Your task to perform on an android device: turn pop-ups off in chrome Image 0: 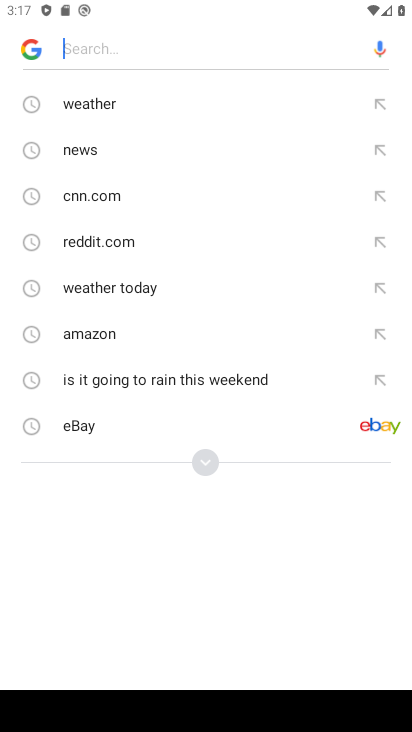
Step 0: press home button
Your task to perform on an android device: turn pop-ups off in chrome Image 1: 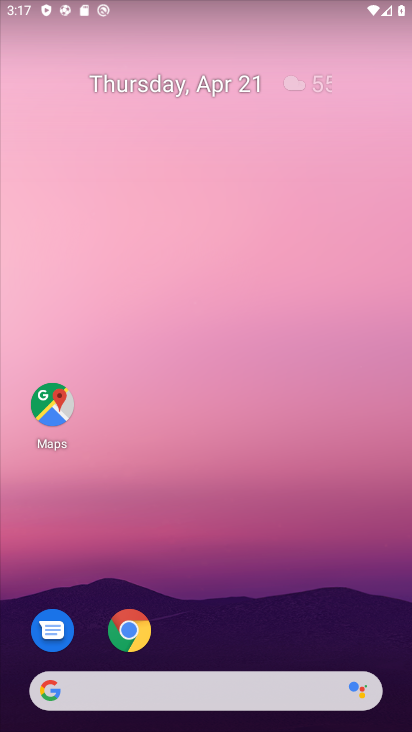
Step 1: click (124, 631)
Your task to perform on an android device: turn pop-ups off in chrome Image 2: 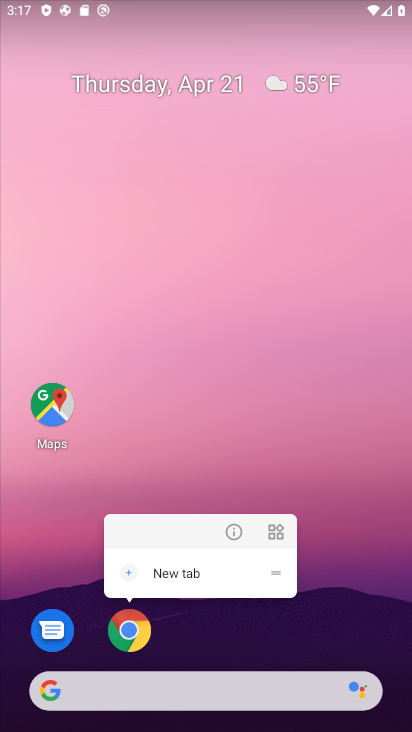
Step 2: click (131, 624)
Your task to perform on an android device: turn pop-ups off in chrome Image 3: 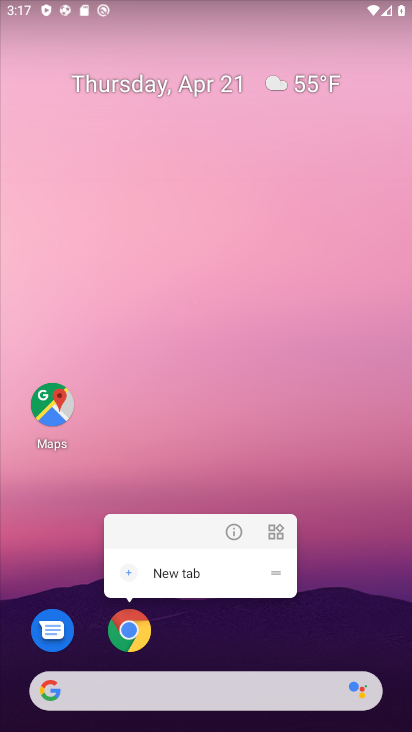
Step 3: click (144, 631)
Your task to perform on an android device: turn pop-ups off in chrome Image 4: 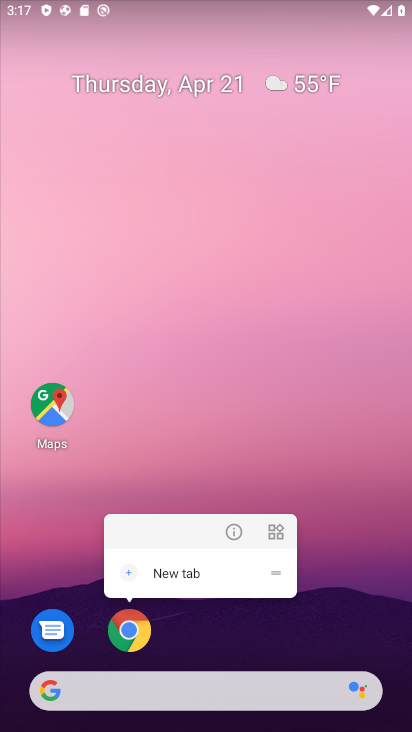
Step 4: click (110, 633)
Your task to perform on an android device: turn pop-ups off in chrome Image 5: 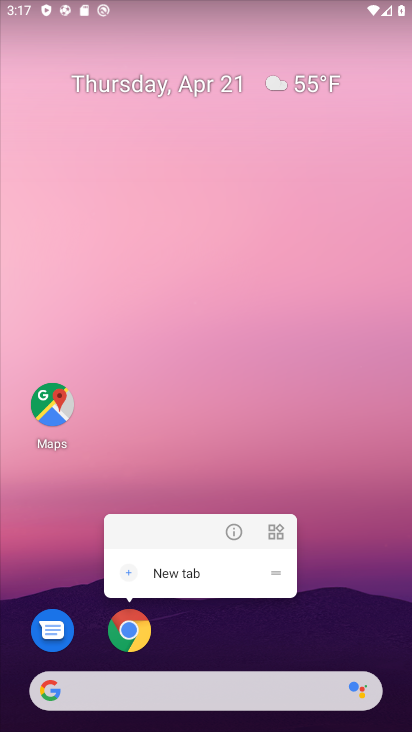
Step 5: click (118, 634)
Your task to perform on an android device: turn pop-ups off in chrome Image 6: 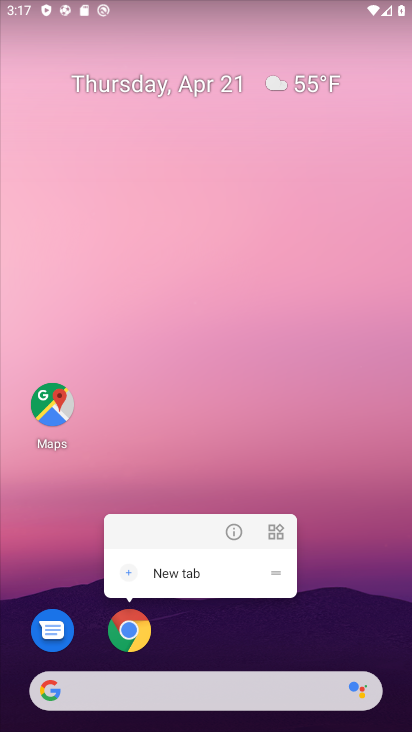
Step 6: click (120, 633)
Your task to perform on an android device: turn pop-ups off in chrome Image 7: 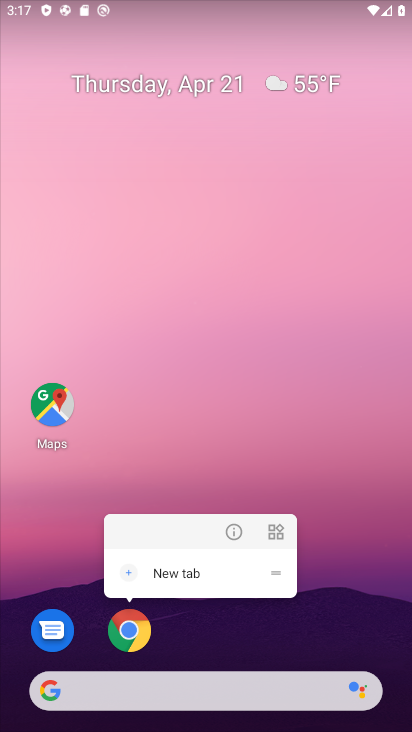
Step 7: click (203, 649)
Your task to perform on an android device: turn pop-ups off in chrome Image 8: 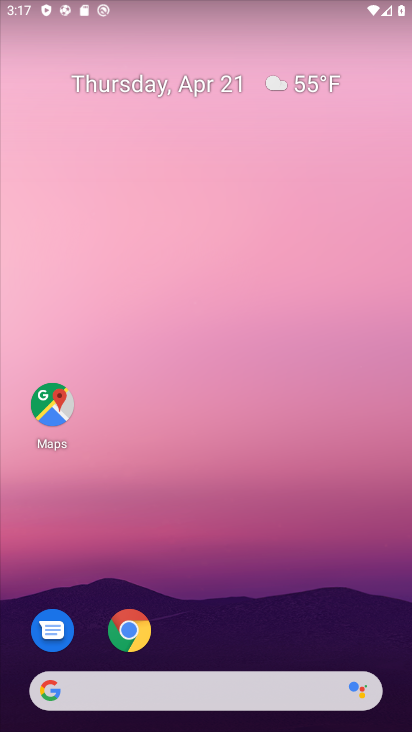
Step 8: drag from (199, 647) to (333, 19)
Your task to perform on an android device: turn pop-ups off in chrome Image 9: 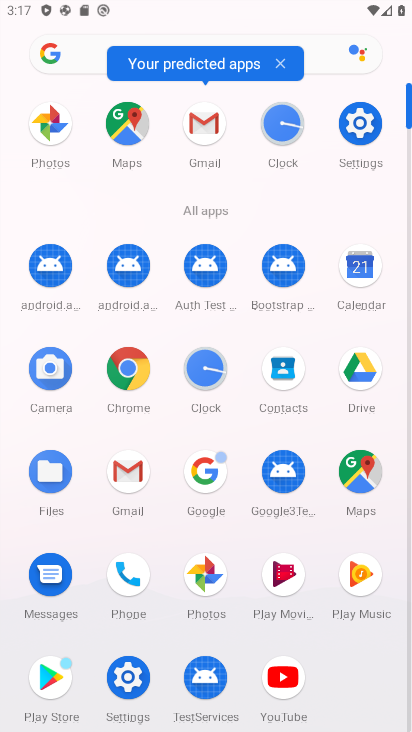
Step 9: click (138, 372)
Your task to perform on an android device: turn pop-ups off in chrome Image 10: 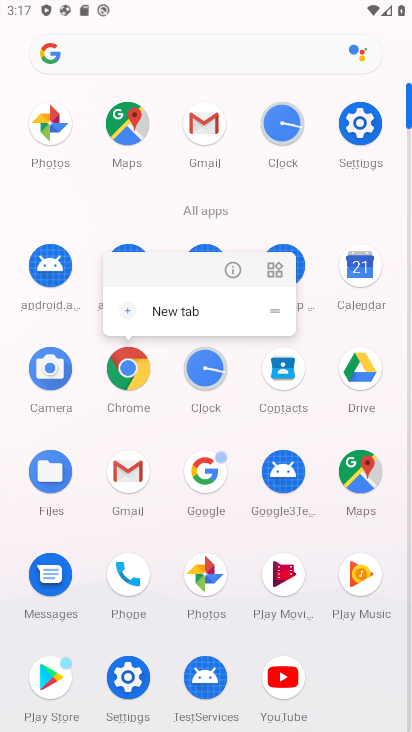
Step 10: click (132, 365)
Your task to perform on an android device: turn pop-ups off in chrome Image 11: 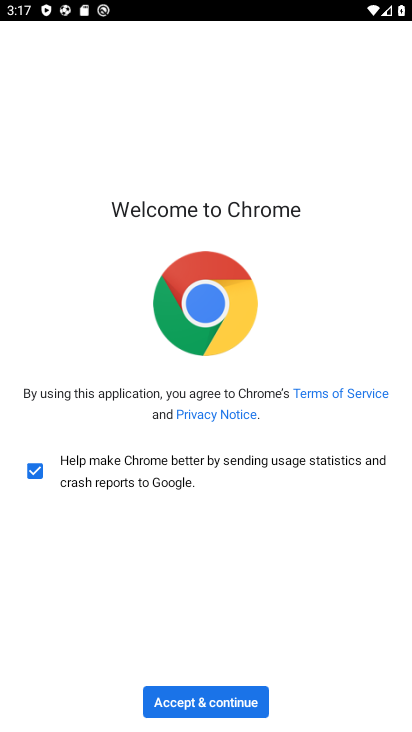
Step 11: click (214, 702)
Your task to perform on an android device: turn pop-ups off in chrome Image 12: 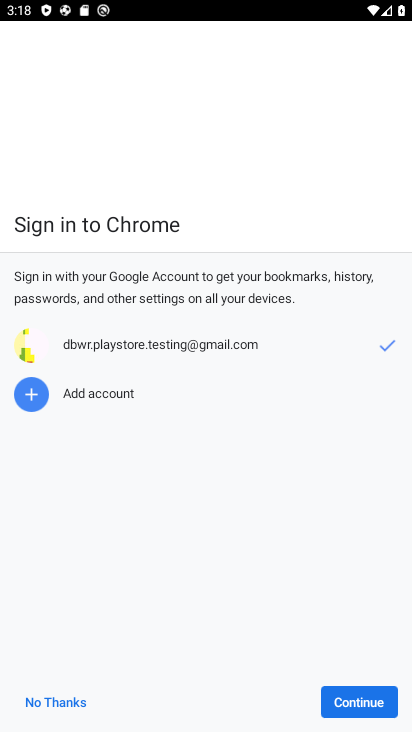
Step 12: click (338, 696)
Your task to perform on an android device: turn pop-ups off in chrome Image 13: 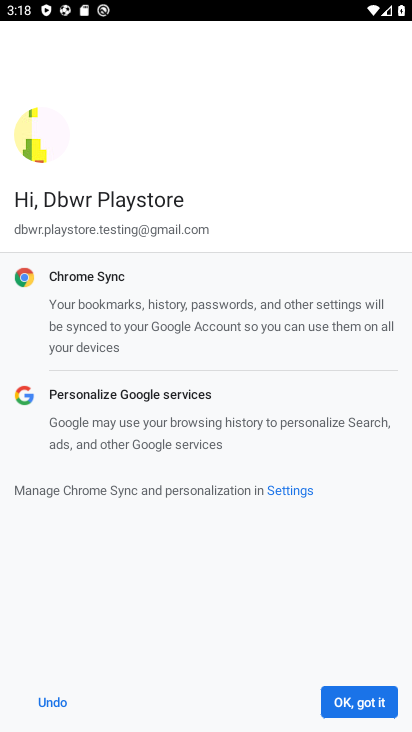
Step 13: click (340, 696)
Your task to perform on an android device: turn pop-ups off in chrome Image 14: 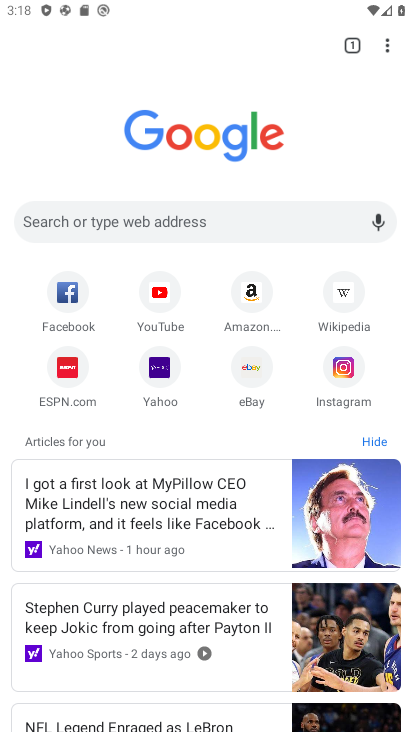
Step 14: click (385, 53)
Your task to perform on an android device: turn pop-ups off in chrome Image 15: 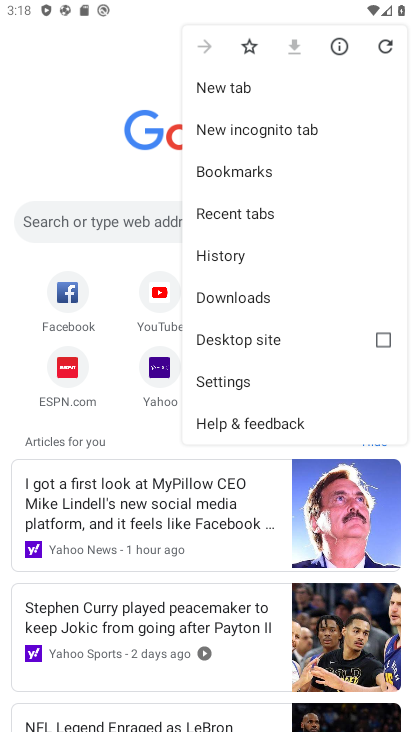
Step 15: click (236, 385)
Your task to perform on an android device: turn pop-ups off in chrome Image 16: 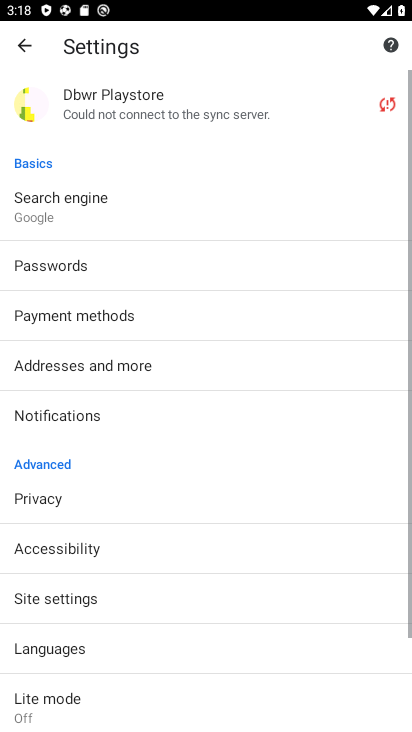
Step 16: drag from (99, 559) to (188, 239)
Your task to perform on an android device: turn pop-ups off in chrome Image 17: 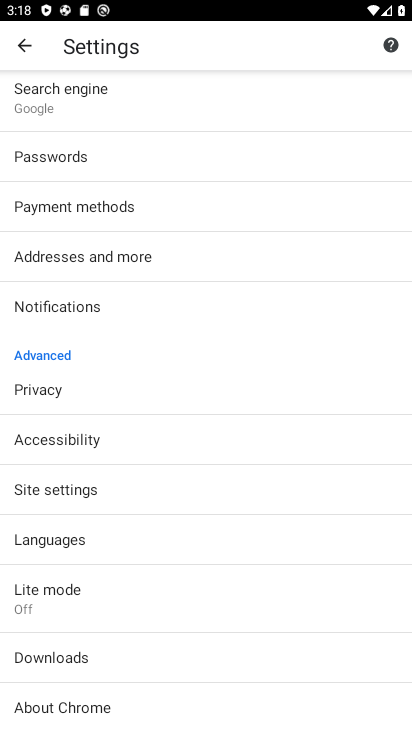
Step 17: click (75, 484)
Your task to perform on an android device: turn pop-ups off in chrome Image 18: 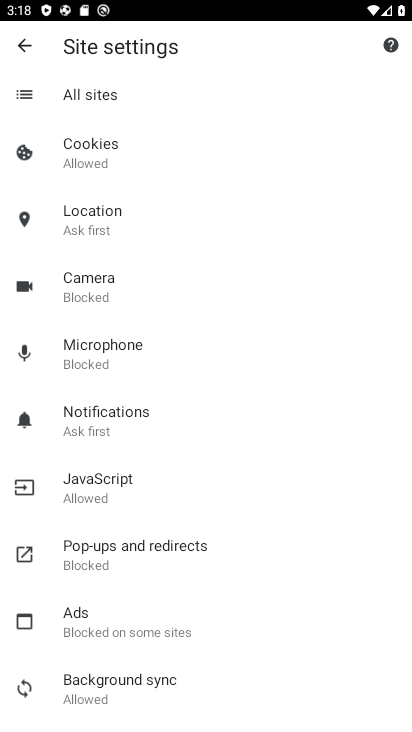
Step 18: click (124, 555)
Your task to perform on an android device: turn pop-ups off in chrome Image 19: 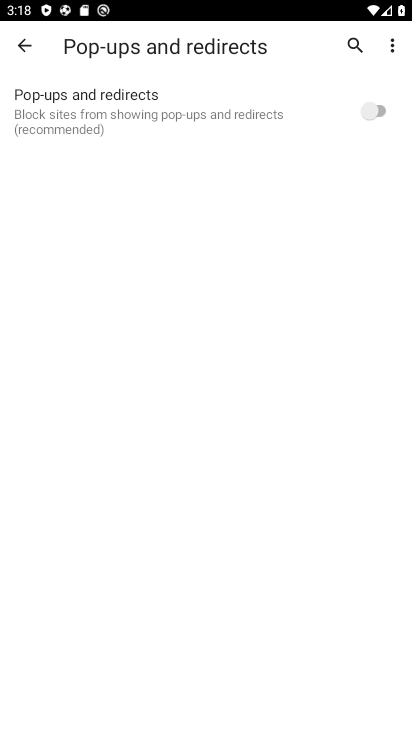
Step 19: task complete